Your task to perform on an android device: Show the shopping cart on amazon. Search for "alienware aurora" on amazon, select the first entry, add it to the cart, then select checkout. Image 0: 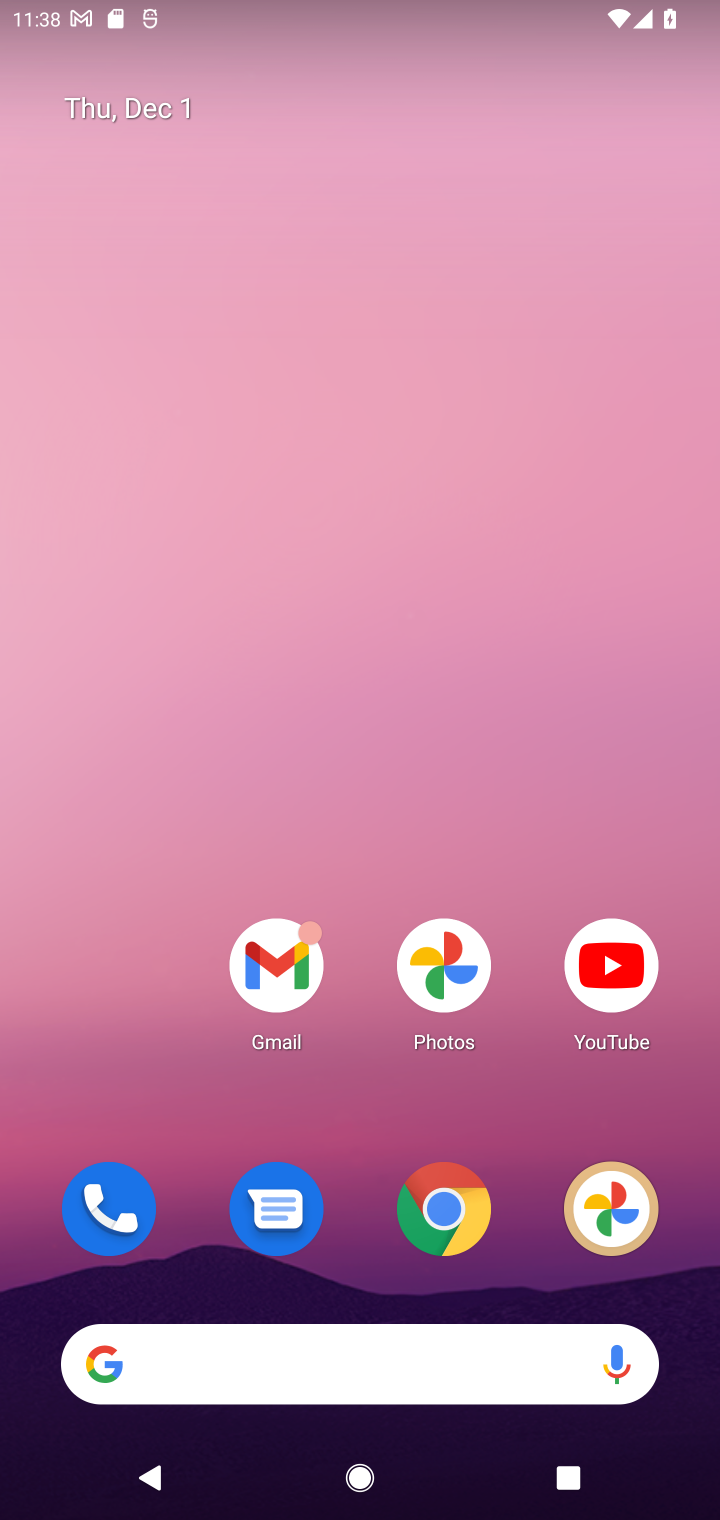
Step 0: task complete